Your task to perform on an android device: Open Yahoo.com Image 0: 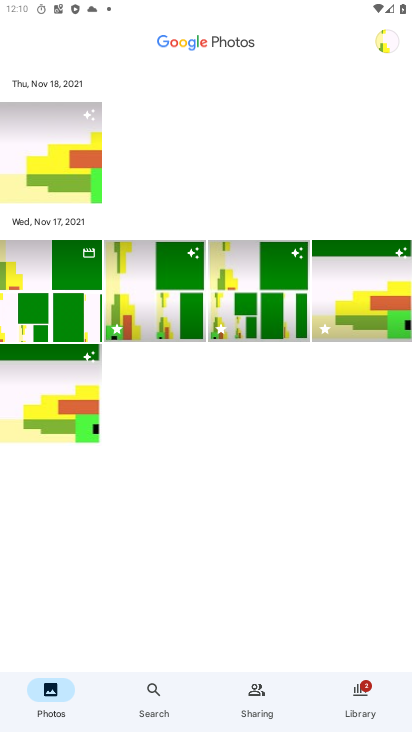
Step 0: press home button
Your task to perform on an android device: Open Yahoo.com Image 1: 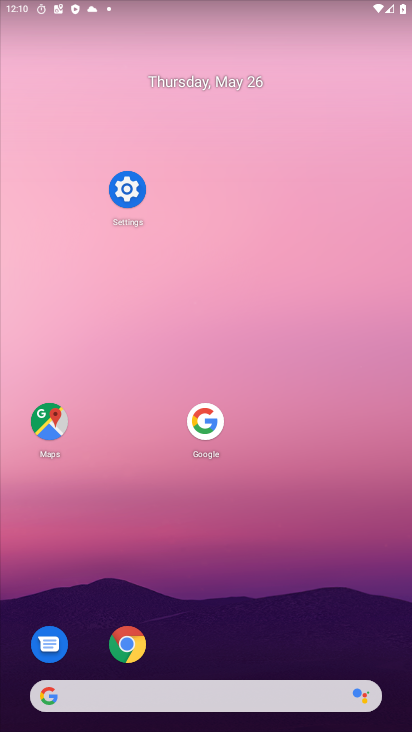
Step 1: click (132, 645)
Your task to perform on an android device: Open Yahoo.com Image 2: 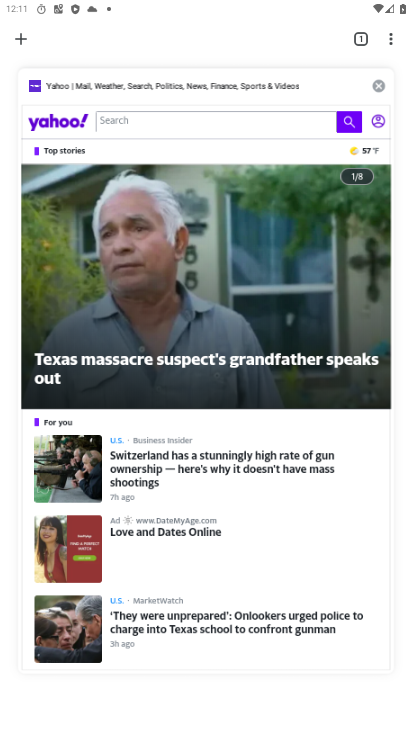
Step 2: task complete